Your task to perform on an android device: delete the emails in spam in the gmail app Image 0: 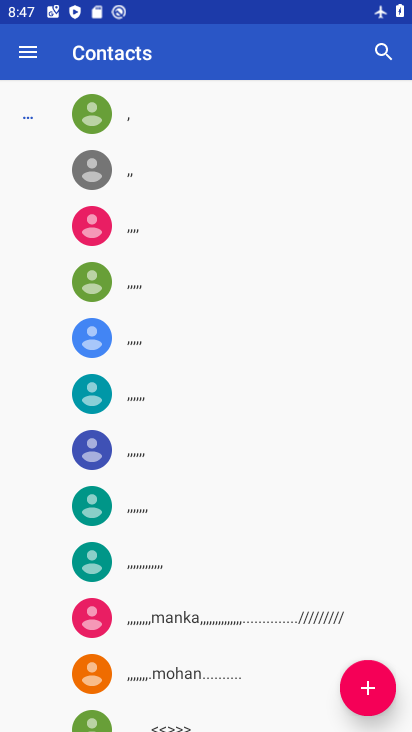
Step 0: press home button
Your task to perform on an android device: delete the emails in spam in the gmail app Image 1: 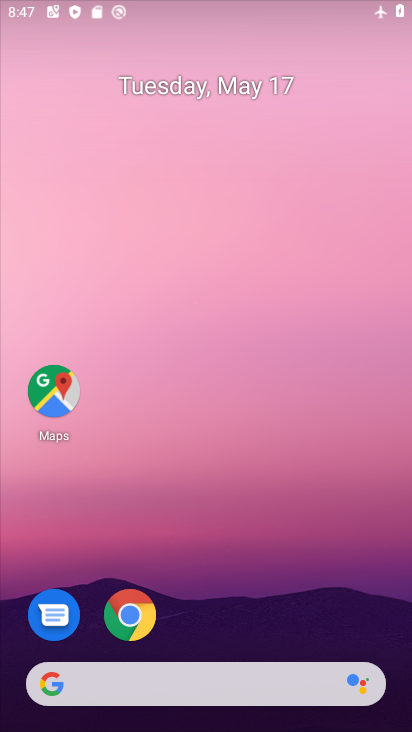
Step 1: drag from (239, 599) to (270, 237)
Your task to perform on an android device: delete the emails in spam in the gmail app Image 2: 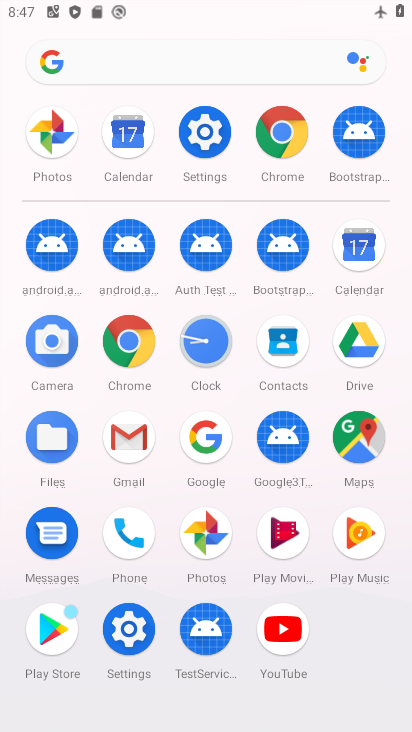
Step 2: click (129, 424)
Your task to perform on an android device: delete the emails in spam in the gmail app Image 3: 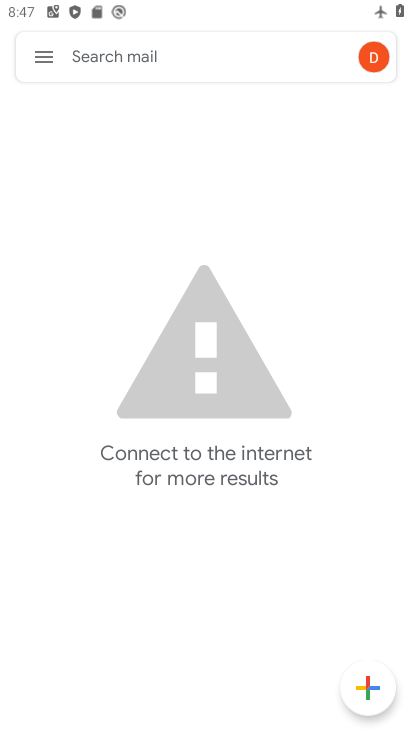
Step 3: click (43, 52)
Your task to perform on an android device: delete the emails in spam in the gmail app Image 4: 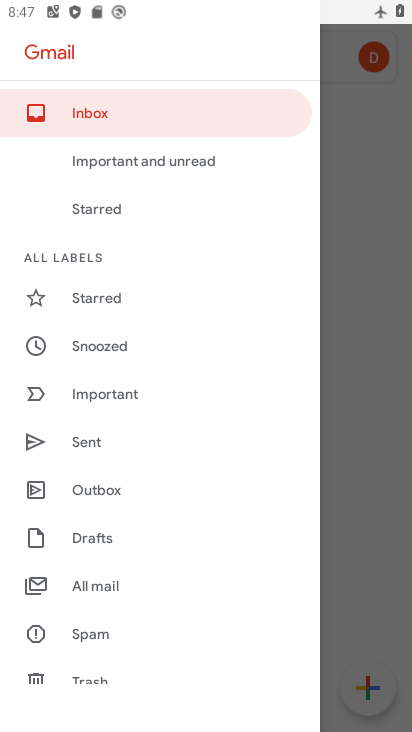
Step 4: click (85, 633)
Your task to perform on an android device: delete the emails in spam in the gmail app Image 5: 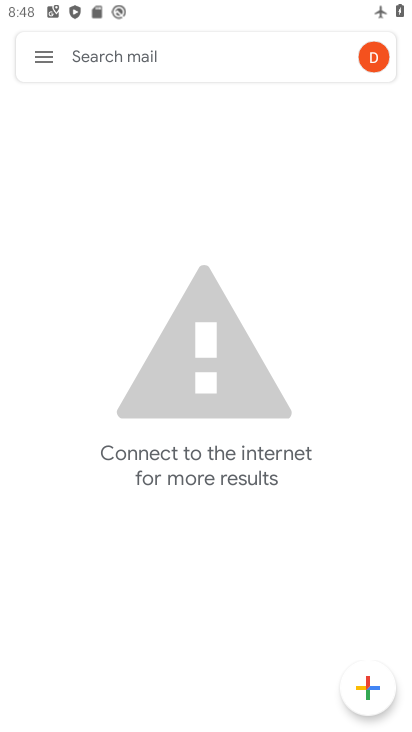
Step 5: task complete